Your task to perform on an android device: toggle pop-ups in chrome Image 0: 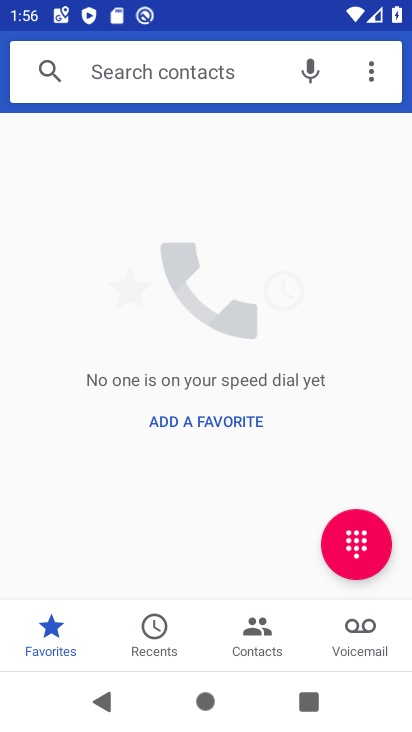
Step 0: press home button
Your task to perform on an android device: toggle pop-ups in chrome Image 1: 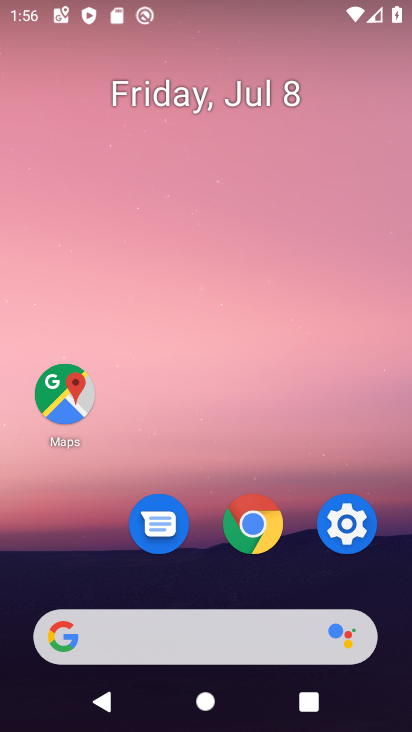
Step 1: click (243, 525)
Your task to perform on an android device: toggle pop-ups in chrome Image 2: 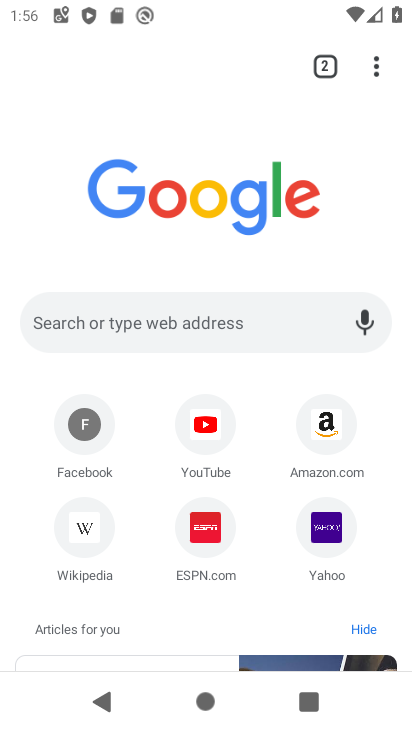
Step 2: click (379, 72)
Your task to perform on an android device: toggle pop-ups in chrome Image 3: 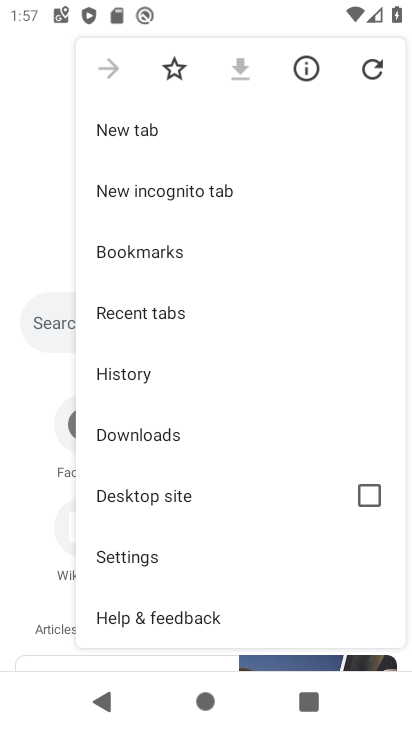
Step 3: click (138, 557)
Your task to perform on an android device: toggle pop-ups in chrome Image 4: 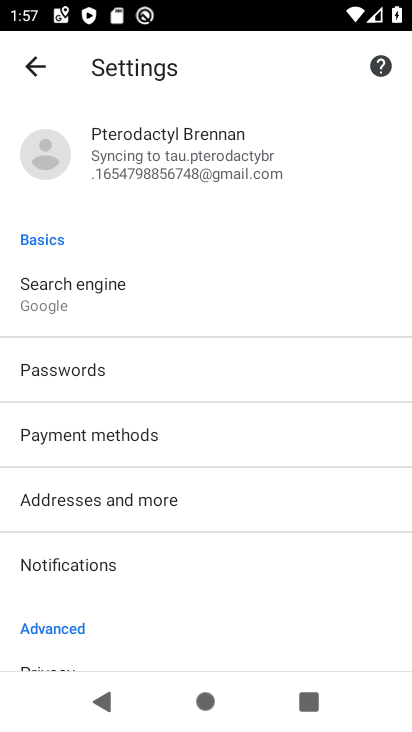
Step 4: drag from (138, 557) to (146, 334)
Your task to perform on an android device: toggle pop-ups in chrome Image 5: 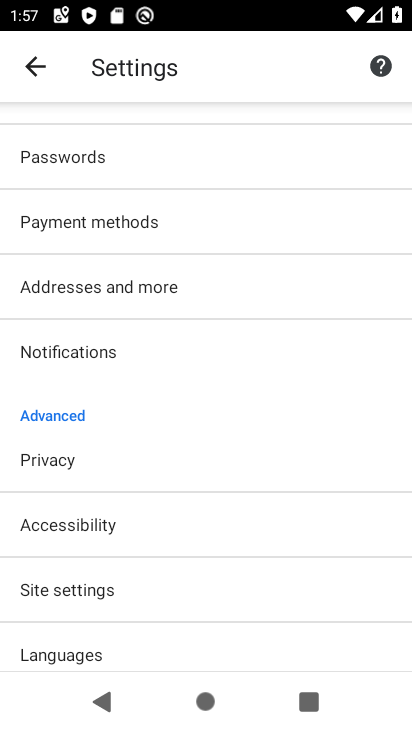
Step 5: click (65, 584)
Your task to perform on an android device: toggle pop-ups in chrome Image 6: 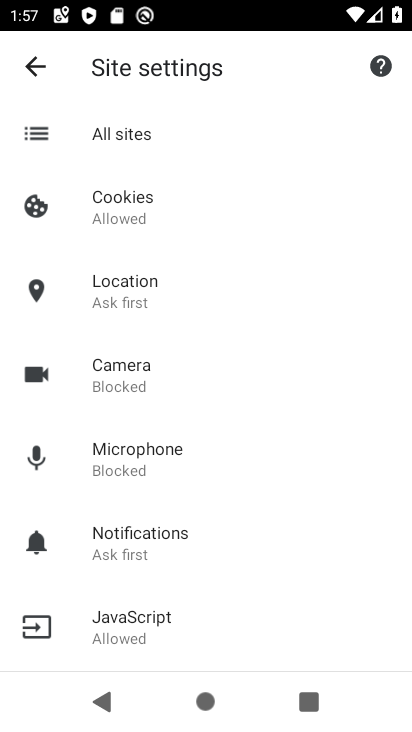
Step 6: drag from (116, 546) to (173, 395)
Your task to perform on an android device: toggle pop-ups in chrome Image 7: 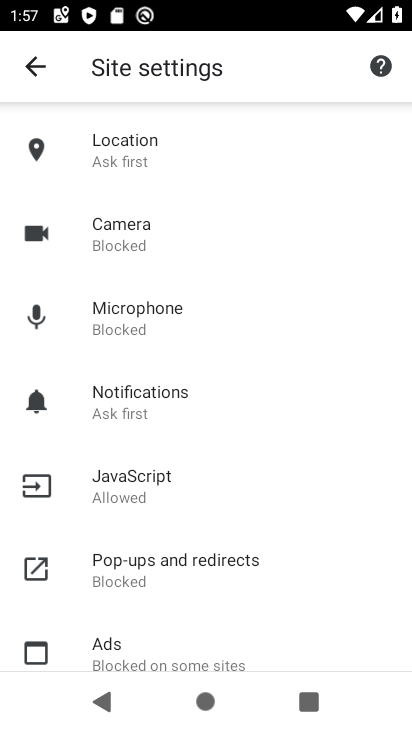
Step 7: click (97, 561)
Your task to perform on an android device: toggle pop-ups in chrome Image 8: 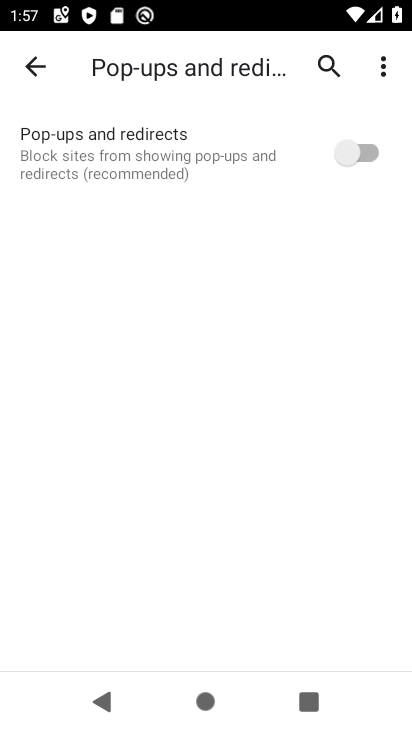
Step 8: click (320, 159)
Your task to perform on an android device: toggle pop-ups in chrome Image 9: 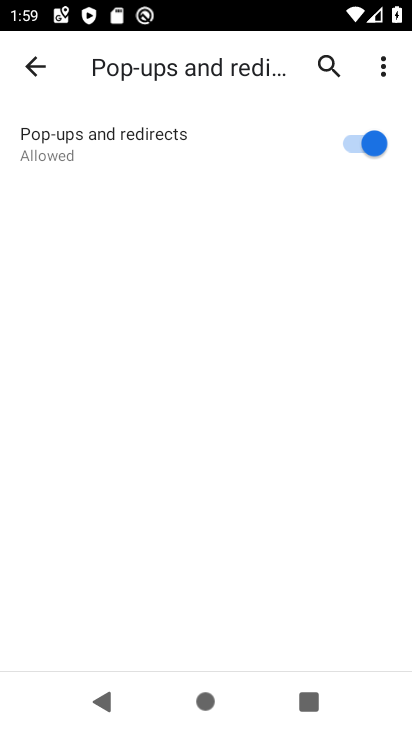
Step 9: task complete